Your task to perform on an android device: see sites visited before in the chrome app Image 0: 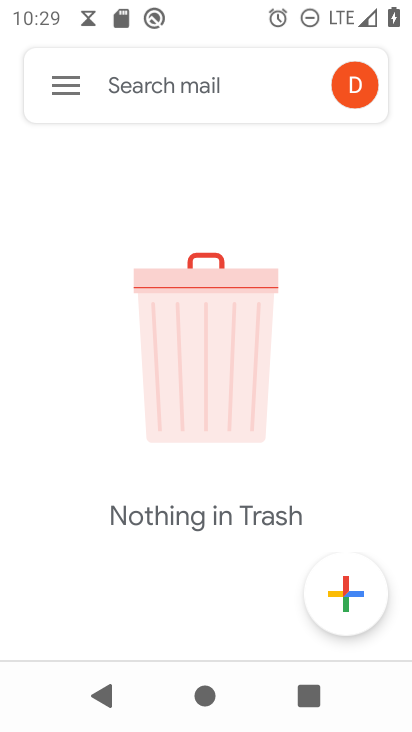
Step 0: press home button
Your task to perform on an android device: see sites visited before in the chrome app Image 1: 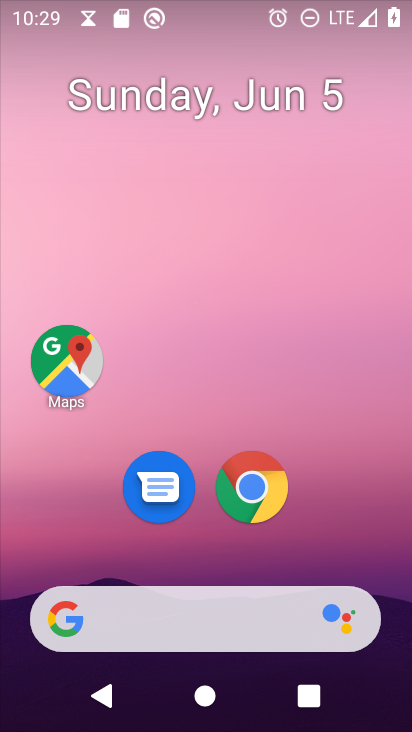
Step 1: click (233, 486)
Your task to perform on an android device: see sites visited before in the chrome app Image 2: 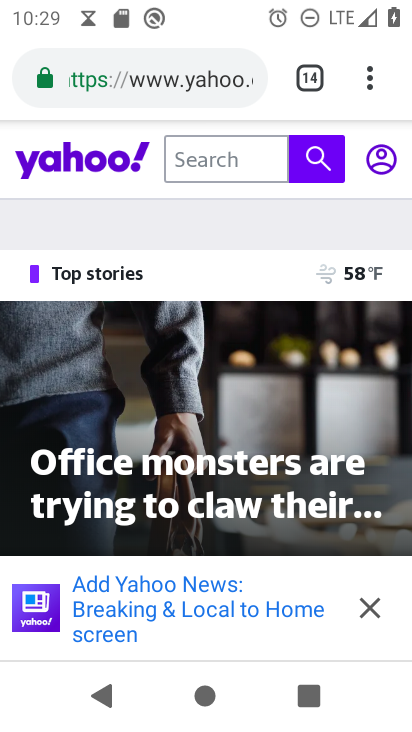
Step 2: click (362, 65)
Your task to perform on an android device: see sites visited before in the chrome app Image 3: 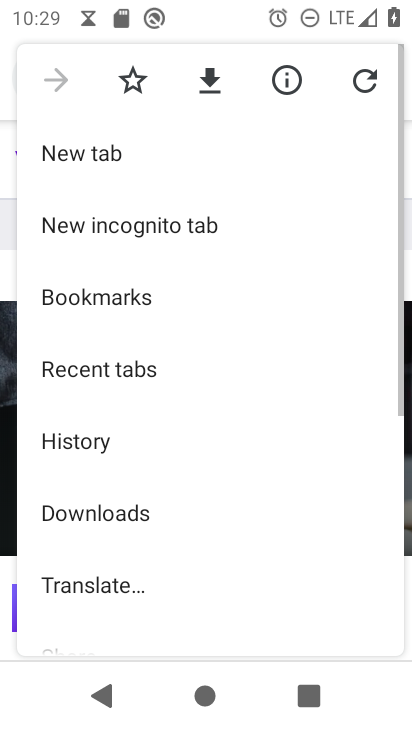
Step 3: click (85, 428)
Your task to perform on an android device: see sites visited before in the chrome app Image 4: 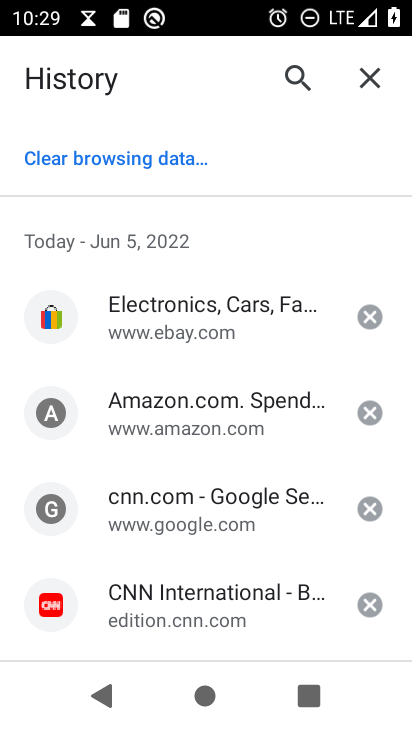
Step 4: task complete